Your task to perform on an android device: Turn off the flashlight Image 0: 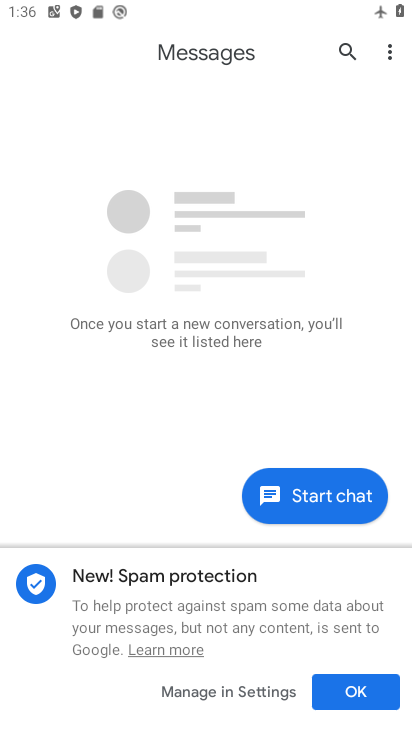
Step 0: press home button
Your task to perform on an android device: Turn off the flashlight Image 1: 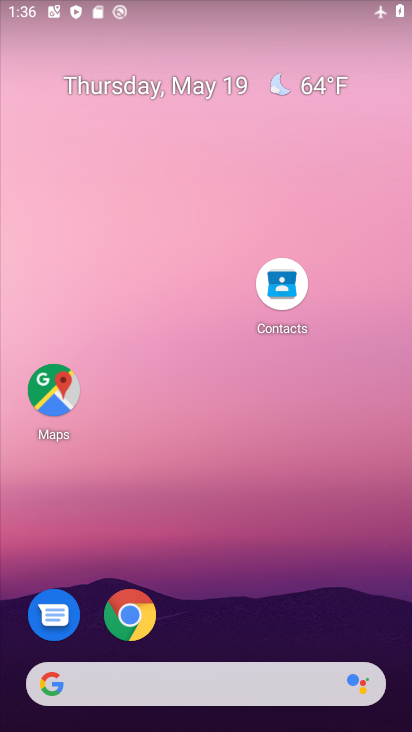
Step 1: task complete